Your task to perform on an android device: read, delete, or share a saved page in the chrome app Image 0: 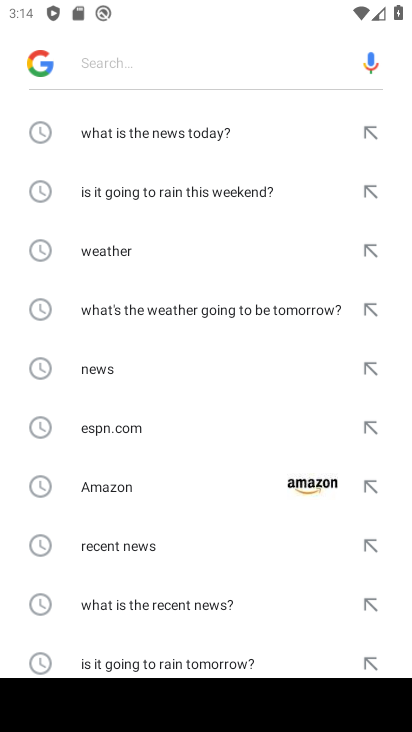
Step 0: press home button
Your task to perform on an android device: read, delete, or share a saved page in the chrome app Image 1: 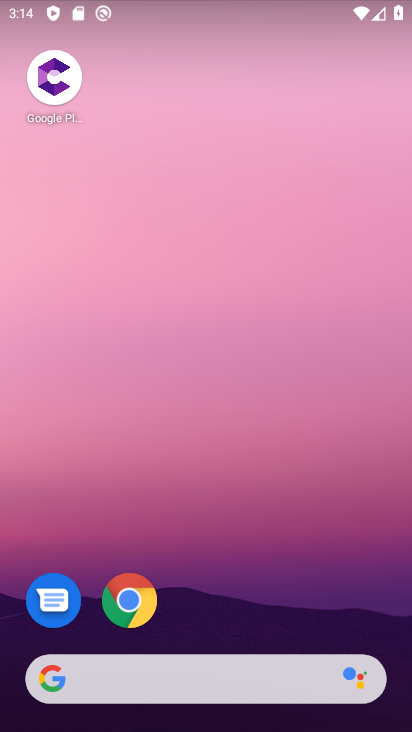
Step 1: click (139, 595)
Your task to perform on an android device: read, delete, or share a saved page in the chrome app Image 2: 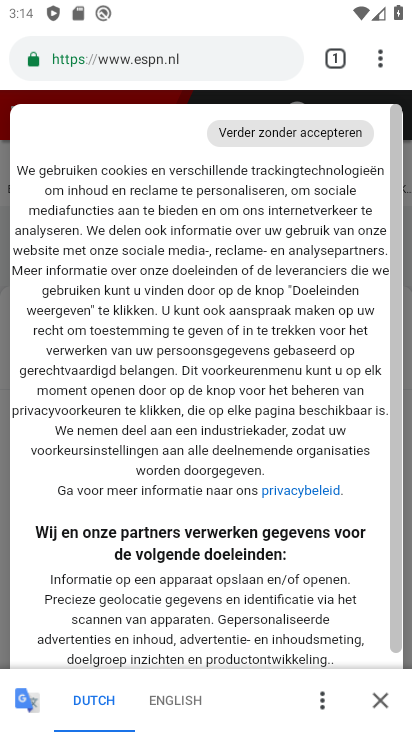
Step 2: click (382, 60)
Your task to perform on an android device: read, delete, or share a saved page in the chrome app Image 3: 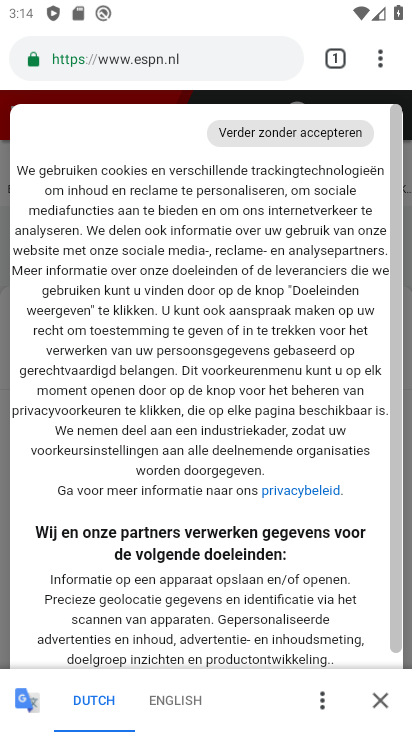
Step 3: click (386, 46)
Your task to perform on an android device: read, delete, or share a saved page in the chrome app Image 4: 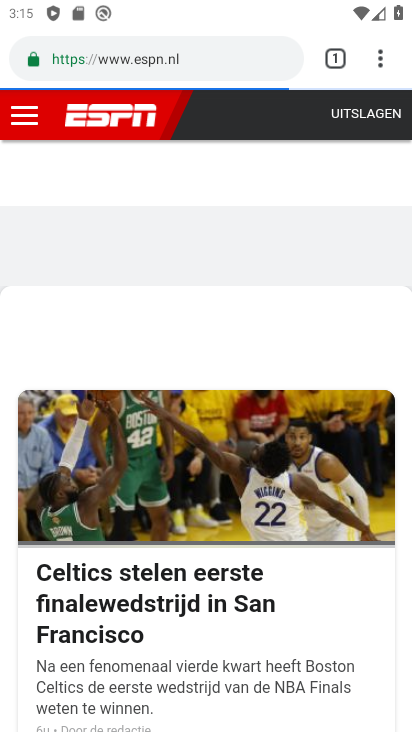
Step 4: click (376, 69)
Your task to perform on an android device: read, delete, or share a saved page in the chrome app Image 5: 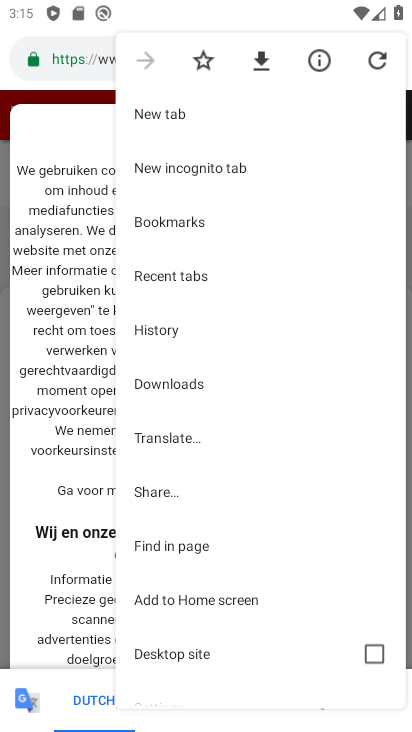
Step 5: click (178, 392)
Your task to perform on an android device: read, delete, or share a saved page in the chrome app Image 6: 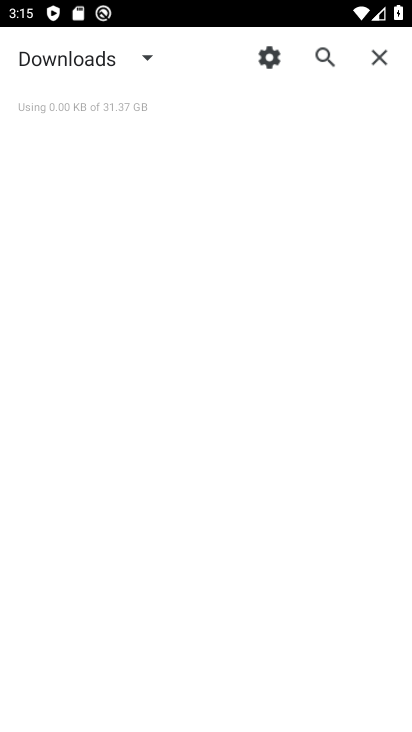
Step 6: task complete